Your task to perform on an android device: Open Reddit.com Image 0: 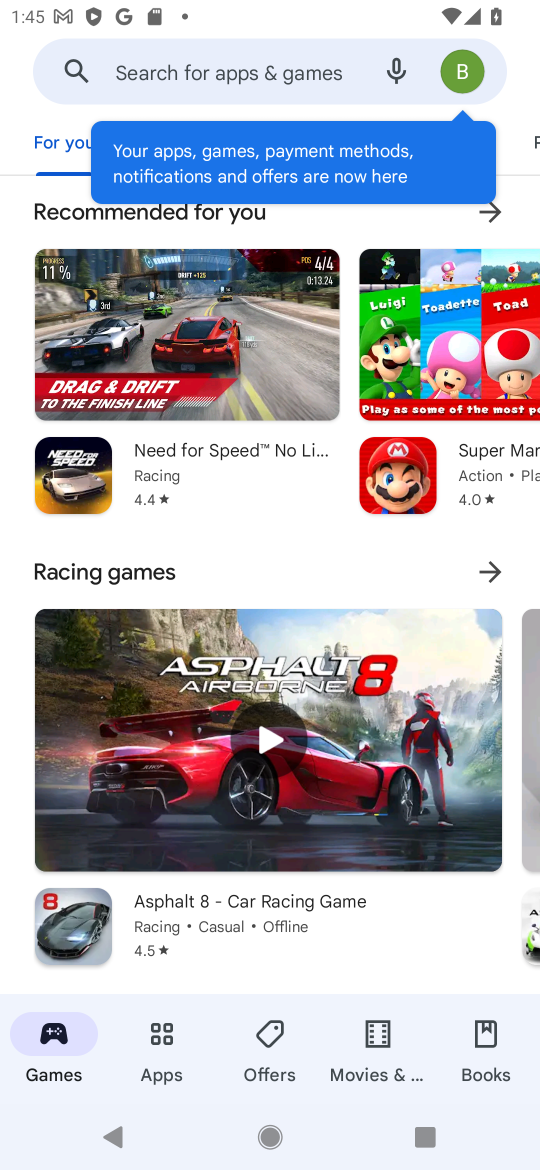
Step 0: press home button
Your task to perform on an android device: Open Reddit.com Image 1: 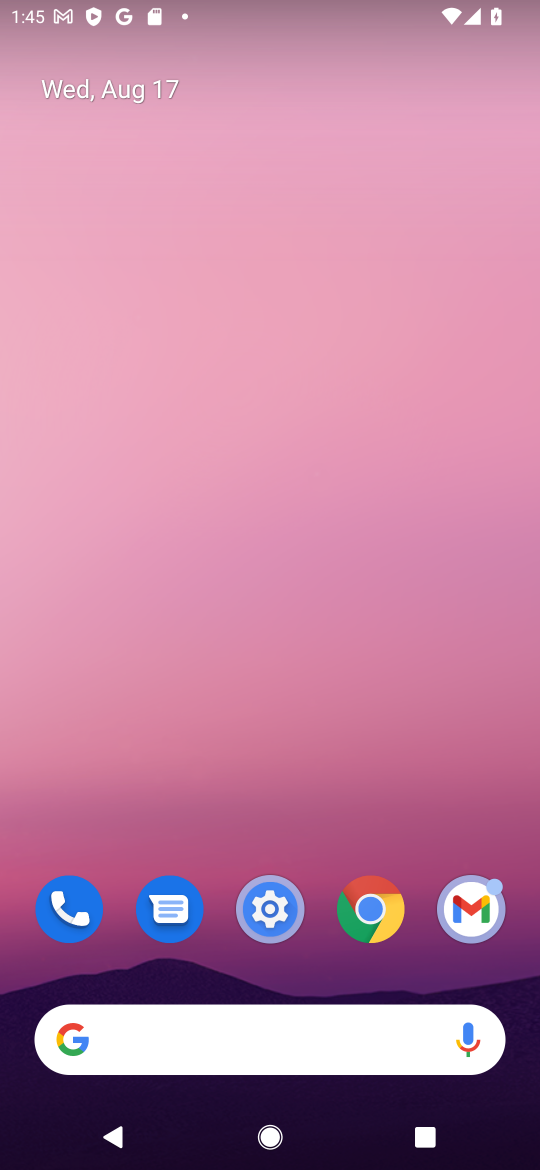
Step 1: click (177, 1046)
Your task to perform on an android device: Open Reddit.com Image 2: 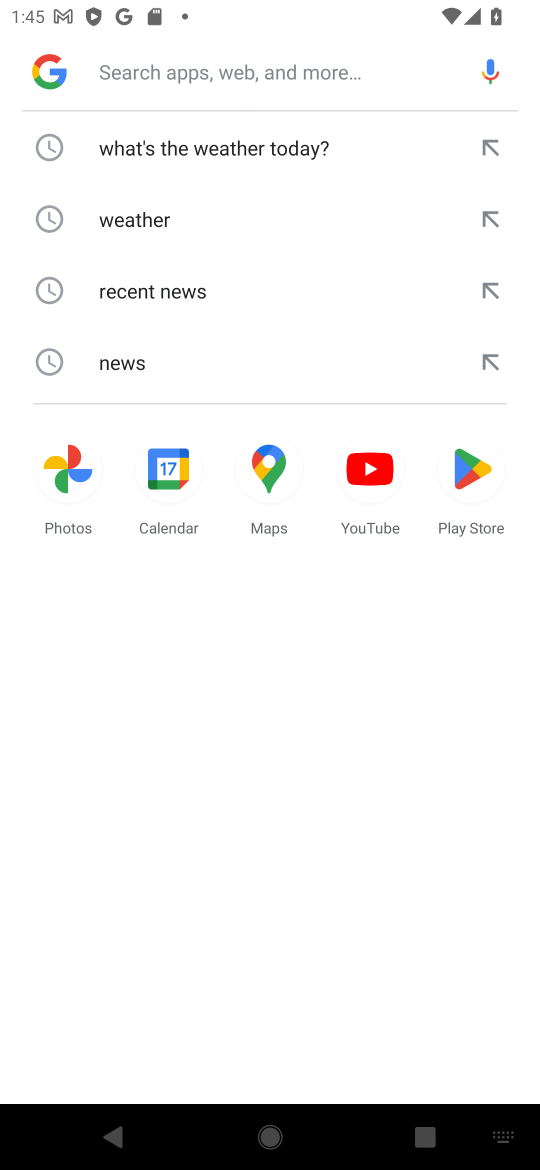
Step 2: type "Reddit.com"
Your task to perform on an android device: Open Reddit.com Image 3: 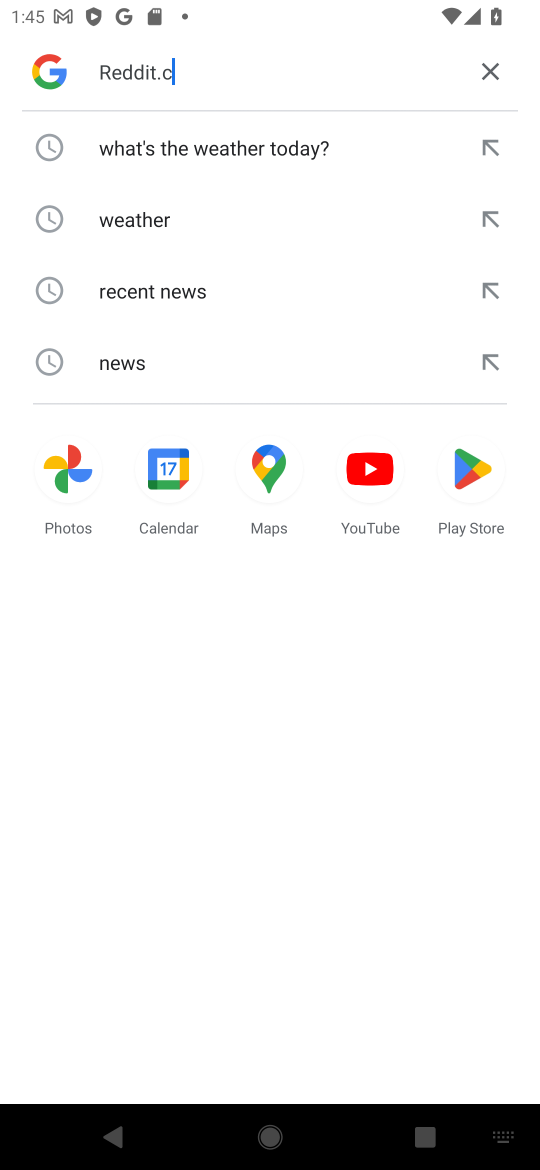
Step 3: type ""
Your task to perform on an android device: Open Reddit.com Image 4: 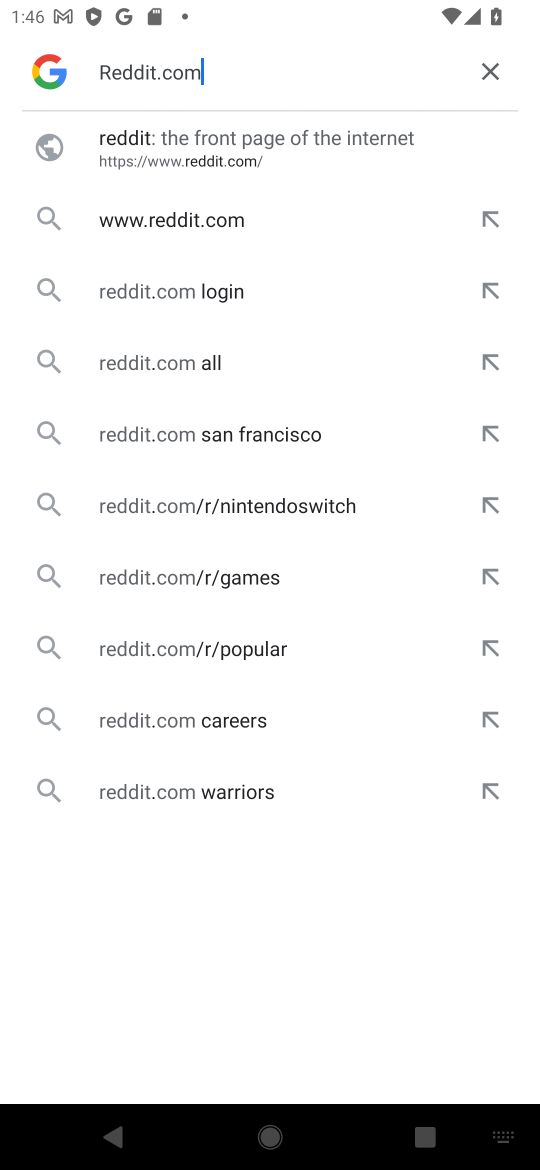
Step 4: press enter
Your task to perform on an android device: Open Reddit.com Image 5: 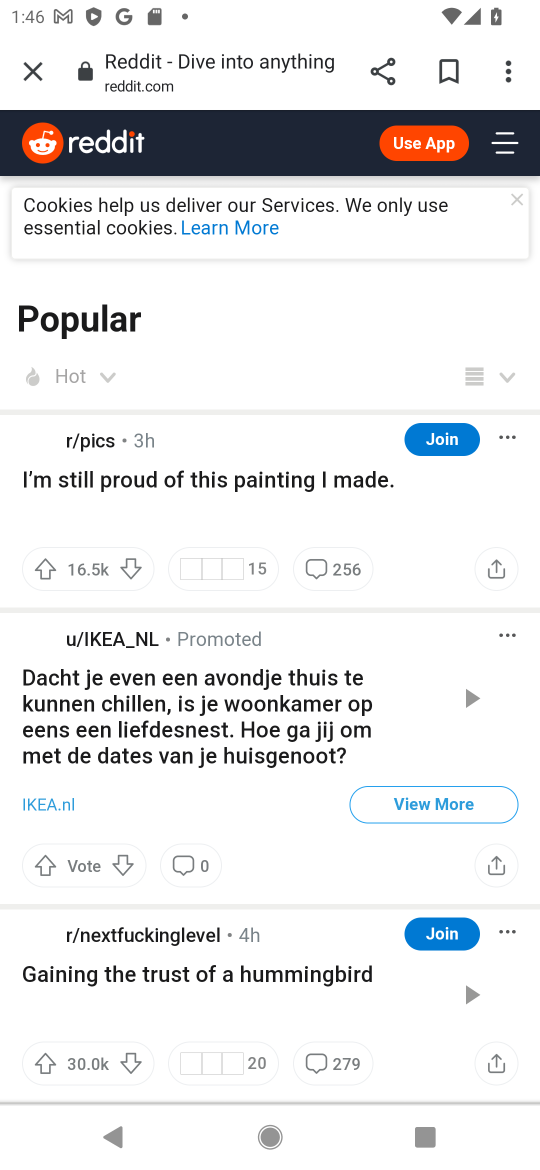
Step 5: task complete